Your task to perform on an android device: Go to settings Image 0: 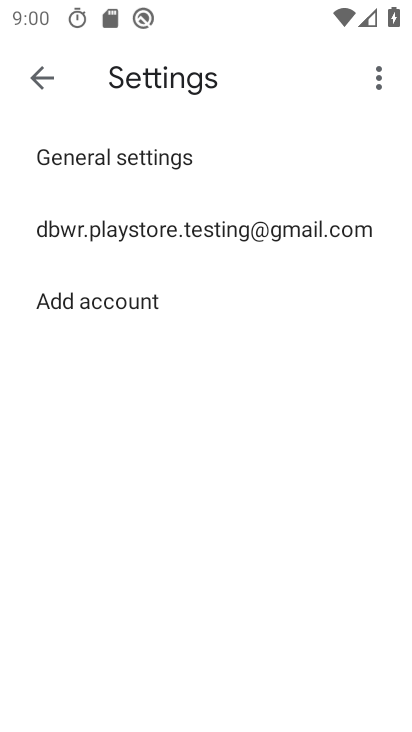
Step 0: press home button
Your task to perform on an android device: Go to settings Image 1: 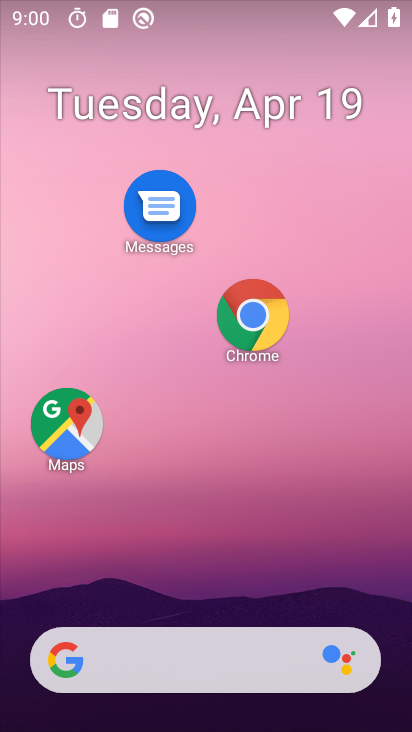
Step 1: drag from (222, 657) to (185, 111)
Your task to perform on an android device: Go to settings Image 2: 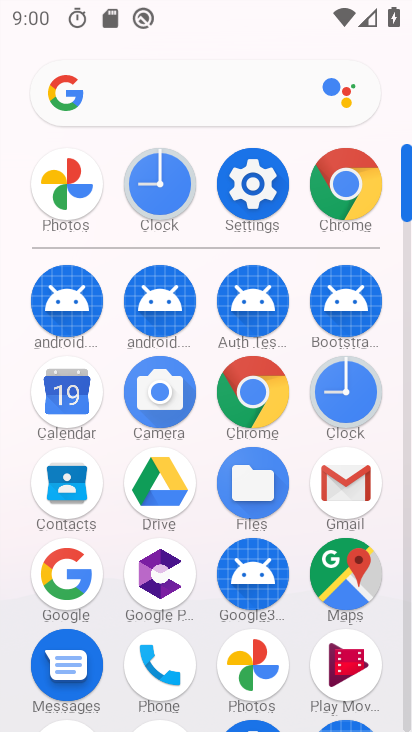
Step 2: click (251, 211)
Your task to perform on an android device: Go to settings Image 3: 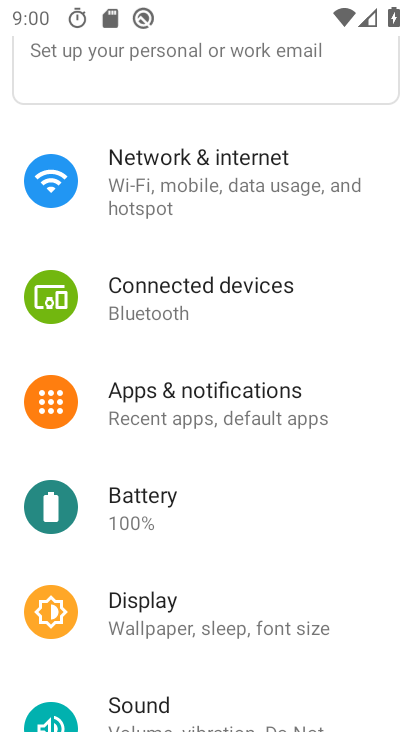
Step 3: task complete